Your task to perform on an android device: Open Google Maps and go to "Timeline" Image 0: 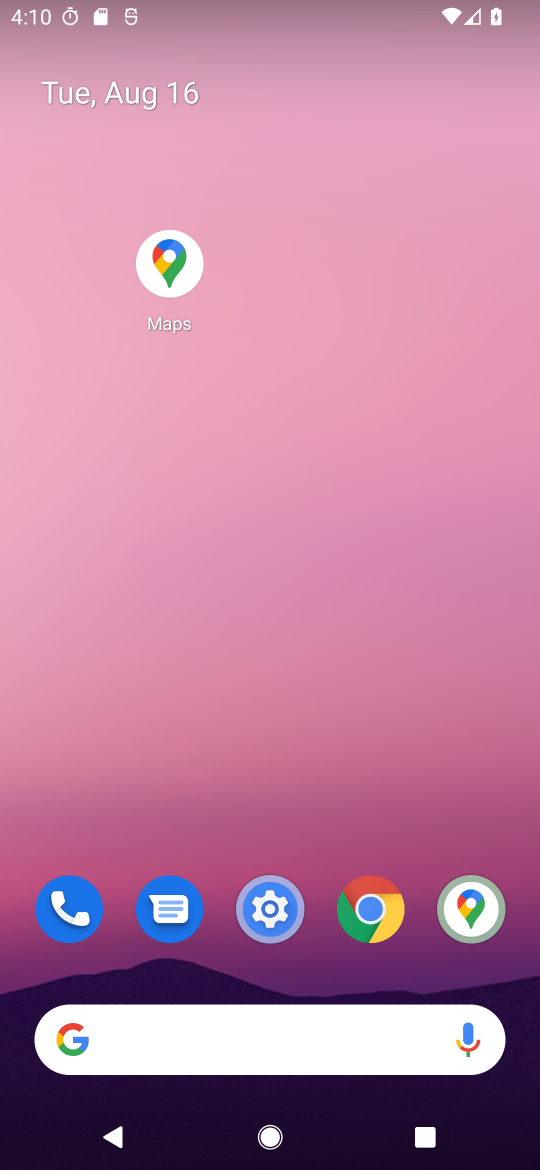
Step 0: click (471, 912)
Your task to perform on an android device: Open Google Maps and go to "Timeline" Image 1: 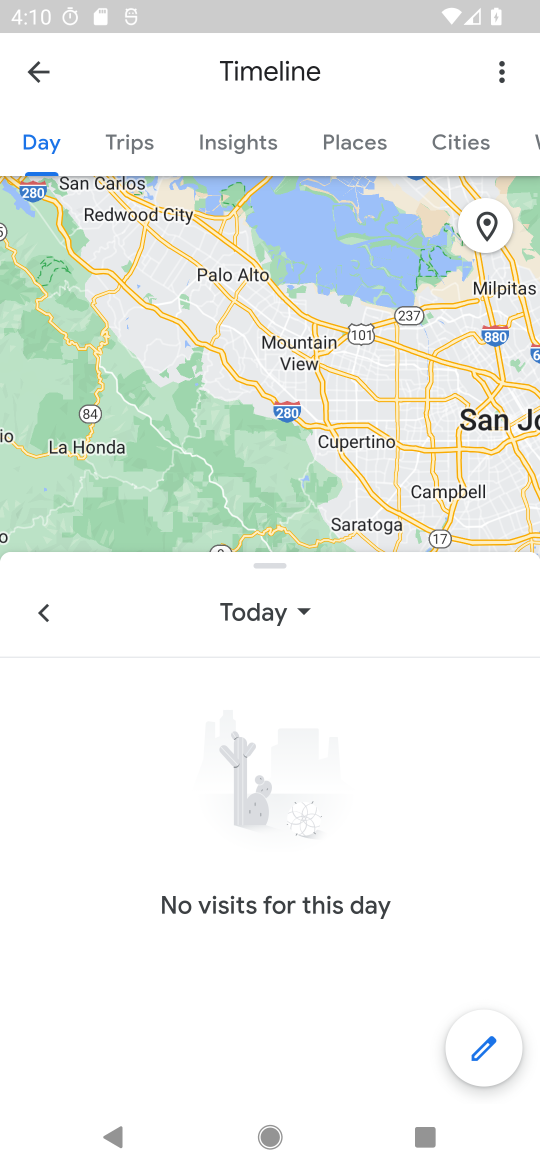
Step 1: task complete